Your task to perform on an android device: uninstall "Nova Launcher" Image 0: 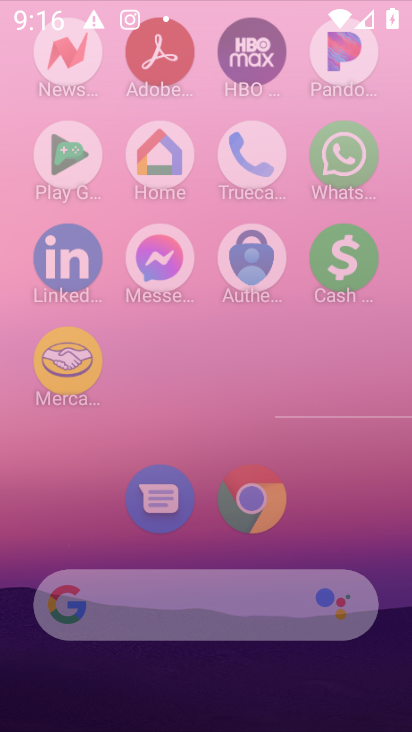
Step 0: press home button
Your task to perform on an android device: uninstall "Nova Launcher" Image 1: 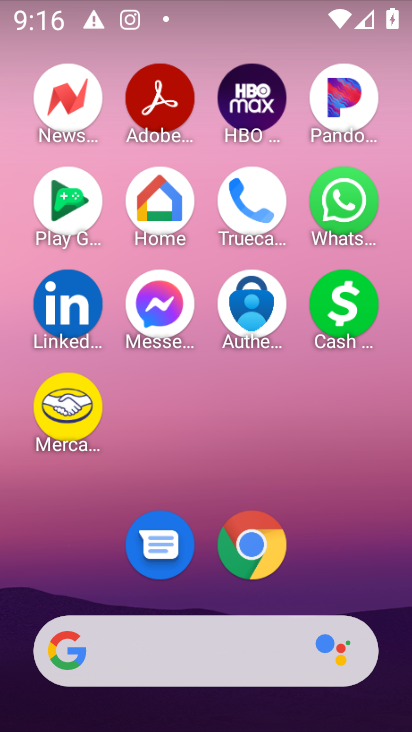
Step 1: drag from (351, 570) to (359, 59)
Your task to perform on an android device: uninstall "Nova Launcher" Image 2: 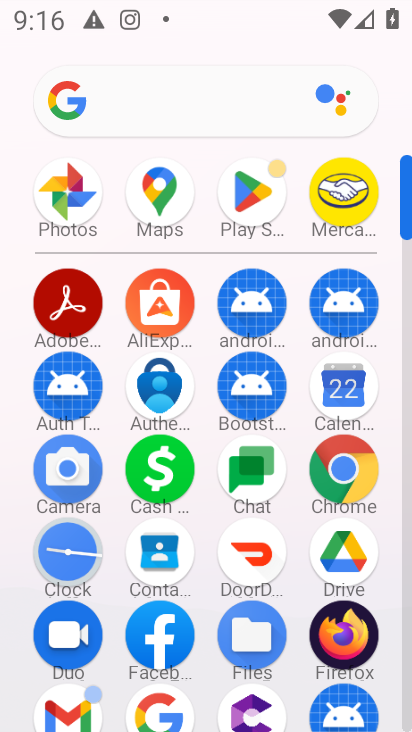
Step 2: click (248, 195)
Your task to perform on an android device: uninstall "Nova Launcher" Image 3: 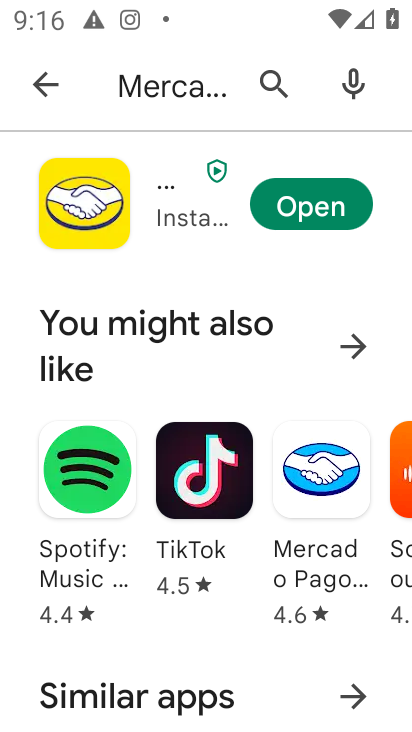
Step 3: press back button
Your task to perform on an android device: uninstall "Nova Launcher" Image 4: 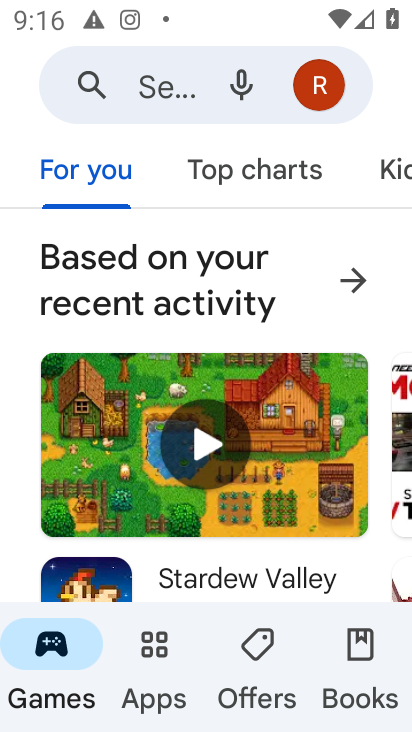
Step 4: click (144, 88)
Your task to perform on an android device: uninstall "Nova Launcher" Image 5: 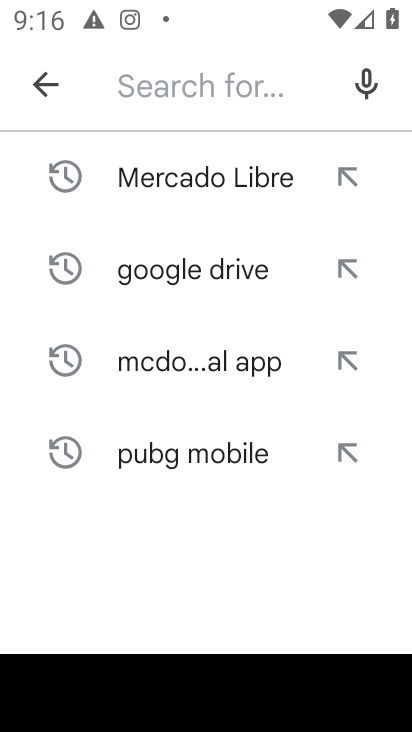
Step 5: type "Nova Launcher"
Your task to perform on an android device: uninstall "Nova Launcher" Image 6: 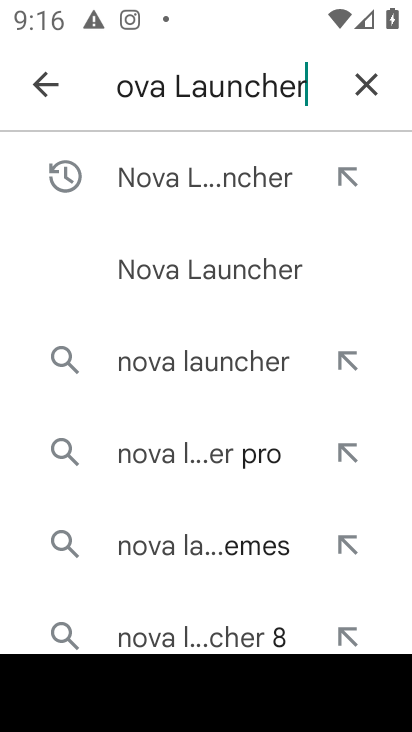
Step 6: press enter
Your task to perform on an android device: uninstall "Nova Launcher" Image 7: 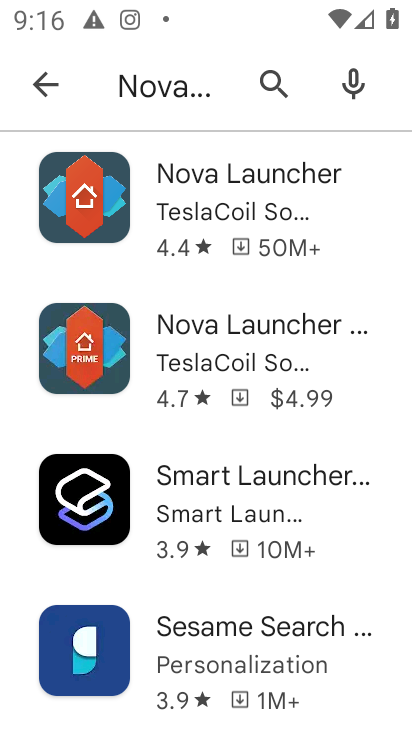
Step 7: click (198, 176)
Your task to perform on an android device: uninstall "Nova Launcher" Image 8: 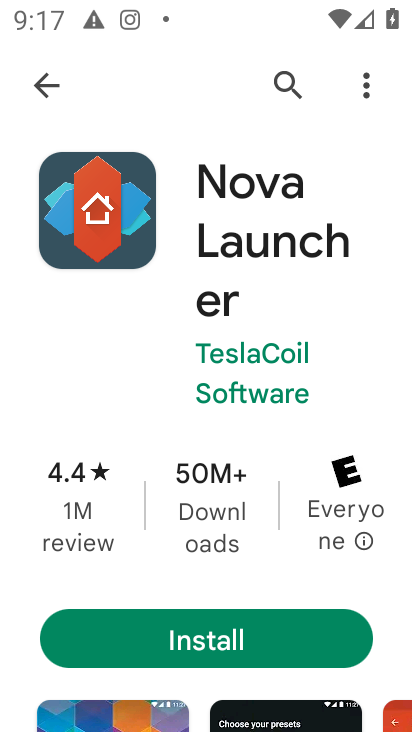
Step 8: task complete